Your task to perform on an android device: Open maps Image 0: 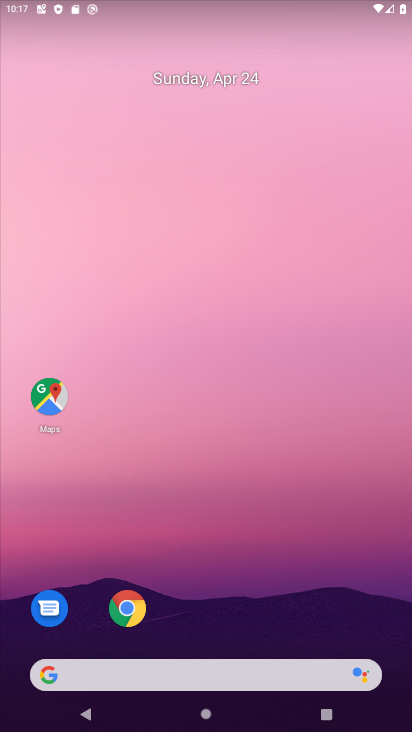
Step 0: drag from (238, 697) to (225, 72)
Your task to perform on an android device: Open maps Image 1: 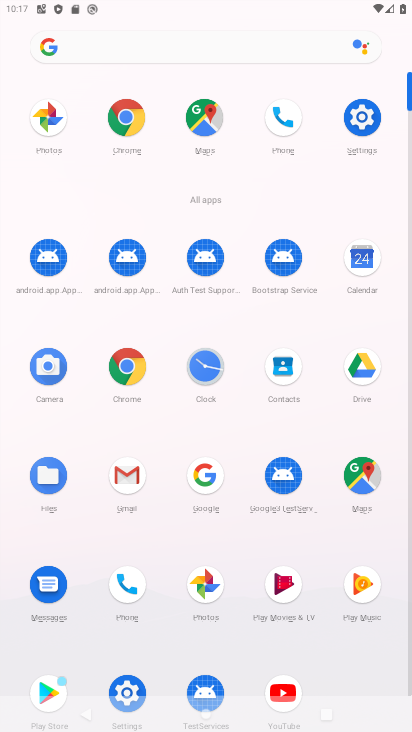
Step 1: click (204, 136)
Your task to perform on an android device: Open maps Image 2: 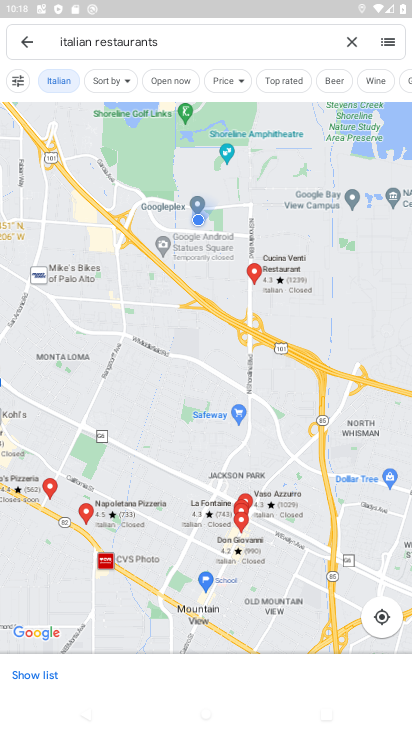
Step 2: click (11, 52)
Your task to perform on an android device: Open maps Image 3: 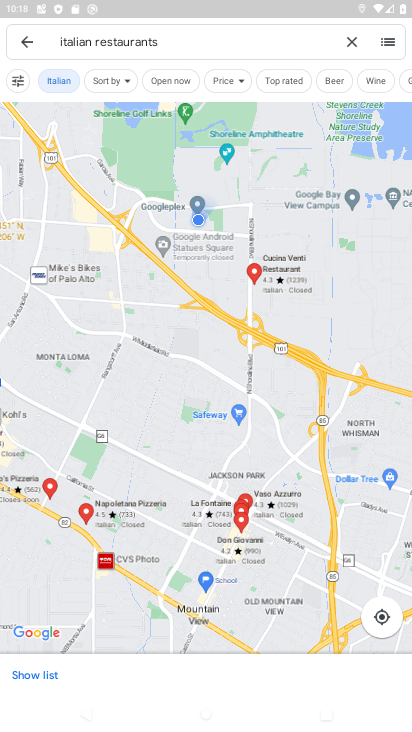
Step 3: click (25, 44)
Your task to perform on an android device: Open maps Image 4: 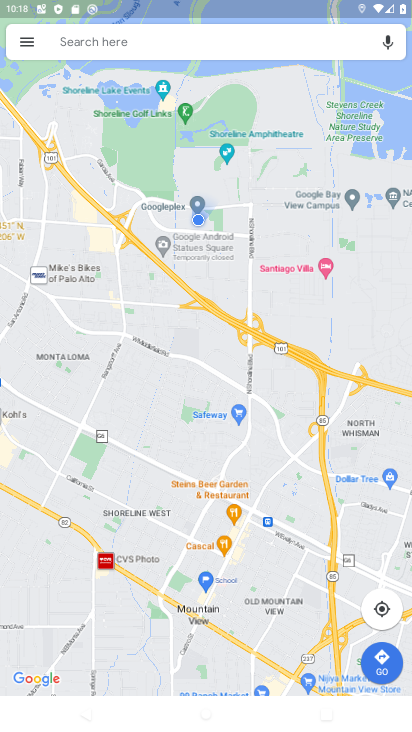
Step 4: task complete